Your task to perform on an android device: turn on translation in the chrome app Image 0: 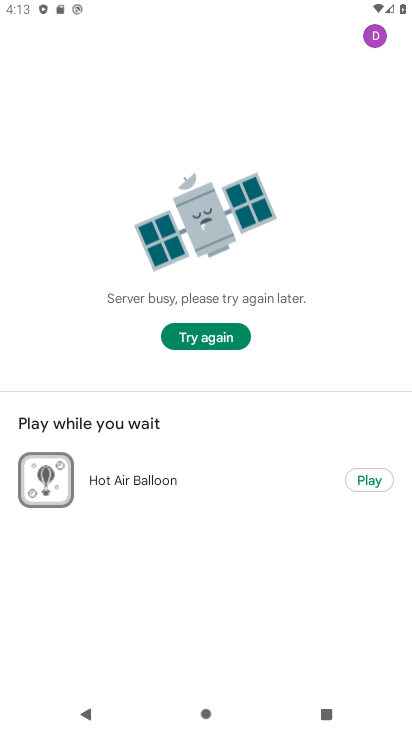
Step 0: press home button
Your task to perform on an android device: turn on translation in the chrome app Image 1: 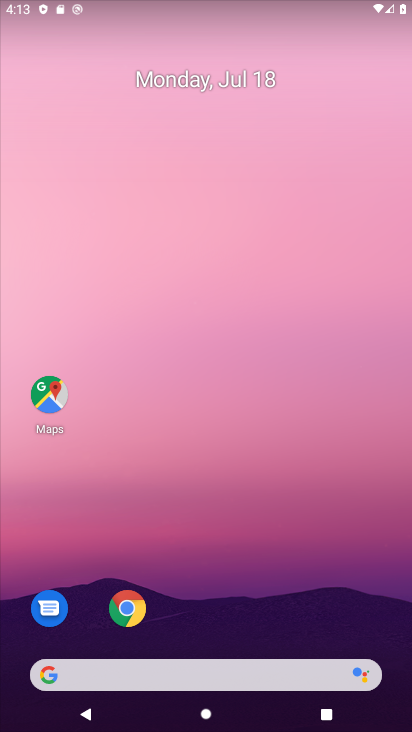
Step 1: drag from (221, 296) to (203, 86)
Your task to perform on an android device: turn on translation in the chrome app Image 2: 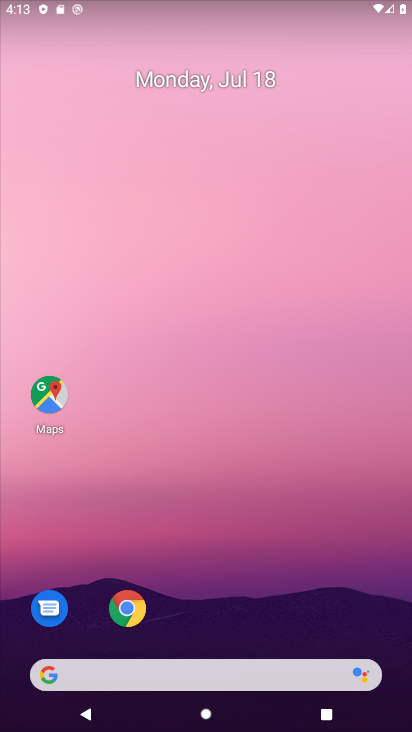
Step 2: drag from (286, 609) to (270, 76)
Your task to perform on an android device: turn on translation in the chrome app Image 3: 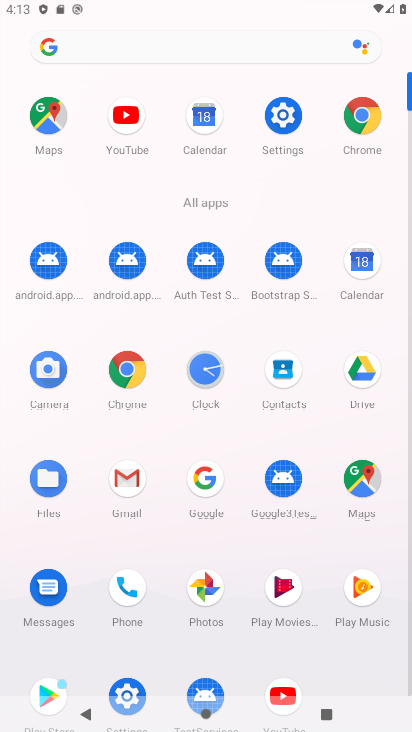
Step 3: click (367, 115)
Your task to perform on an android device: turn on translation in the chrome app Image 4: 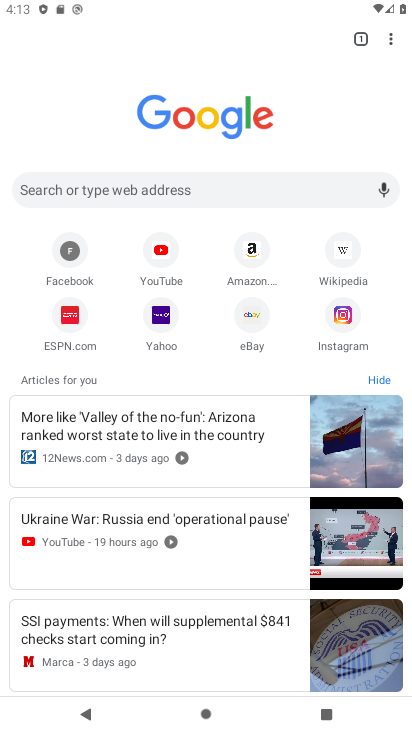
Step 4: drag from (391, 41) to (263, 324)
Your task to perform on an android device: turn on translation in the chrome app Image 5: 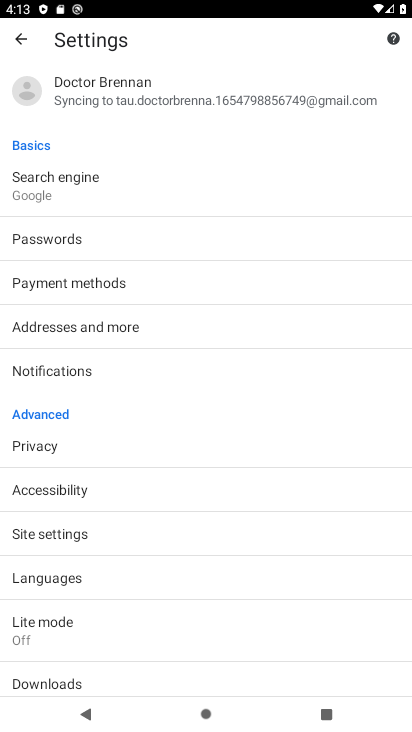
Step 5: click (76, 583)
Your task to perform on an android device: turn on translation in the chrome app Image 6: 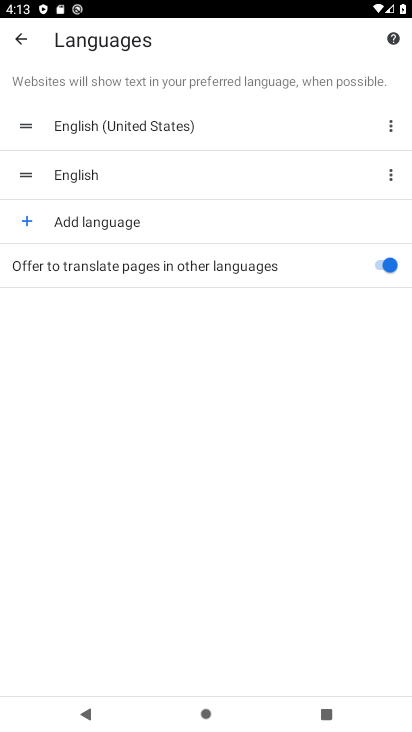
Step 6: task complete